Your task to perform on an android device: turn off priority inbox in the gmail app Image 0: 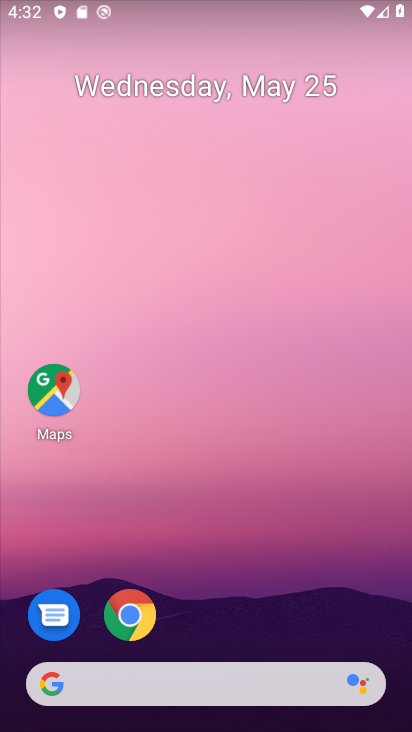
Step 0: drag from (293, 636) to (230, 87)
Your task to perform on an android device: turn off priority inbox in the gmail app Image 1: 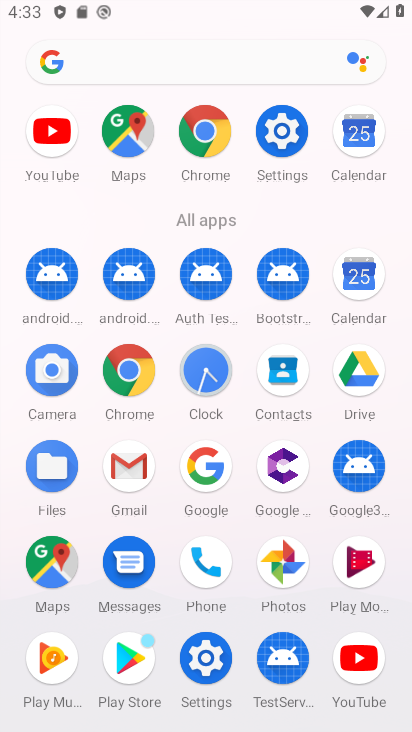
Step 1: click (135, 466)
Your task to perform on an android device: turn off priority inbox in the gmail app Image 2: 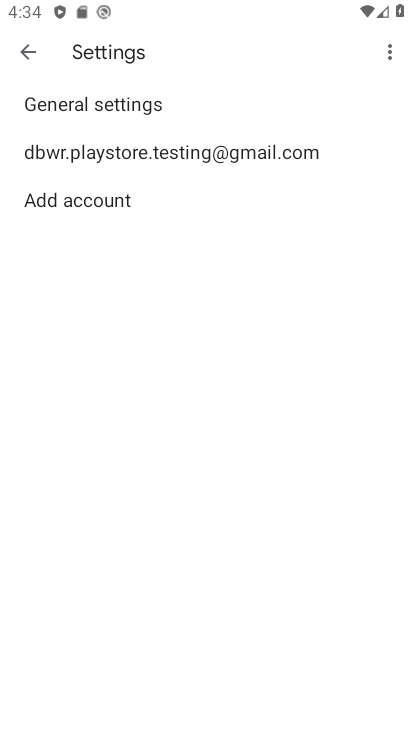
Step 2: click (253, 152)
Your task to perform on an android device: turn off priority inbox in the gmail app Image 3: 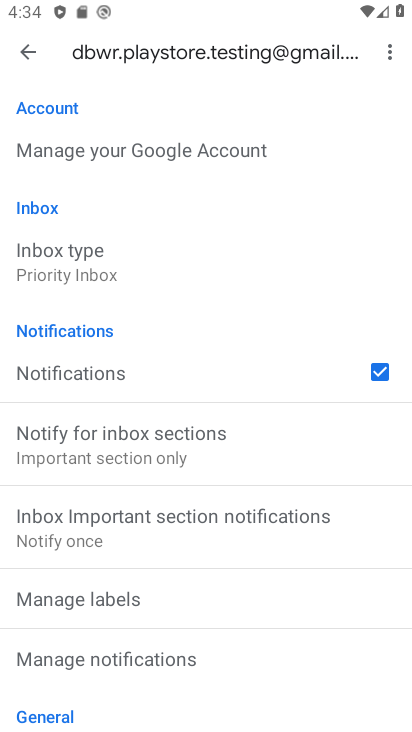
Step 3: drag from (236, 504) to (234, 457)
Your task to perform on an android device: turn off priority inbox in the gmail app Image 4: 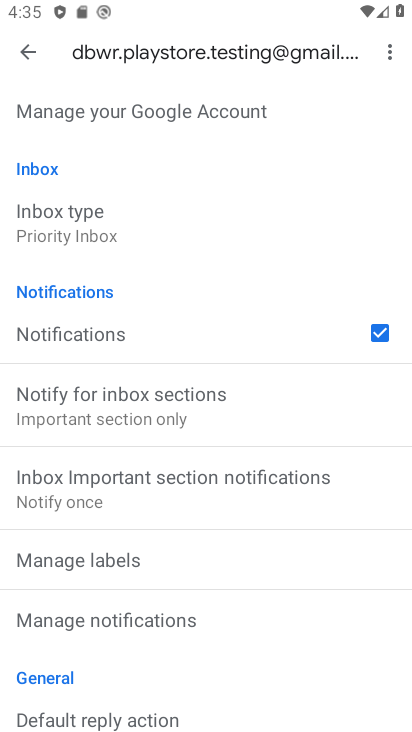
Step 4: click (63, 248)
Your task to perform on an android device: turn off priority inbox in the gmail app Image 5: 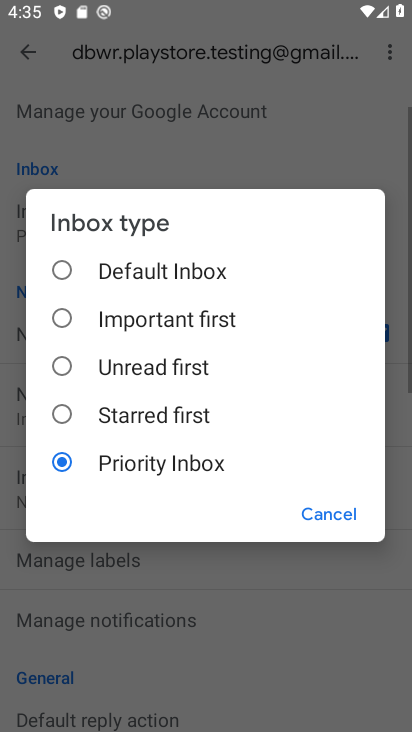
Step 5: click (63, 248)
Your task to perform on an android device: turn off priority inbox in the gmail app Image 6: 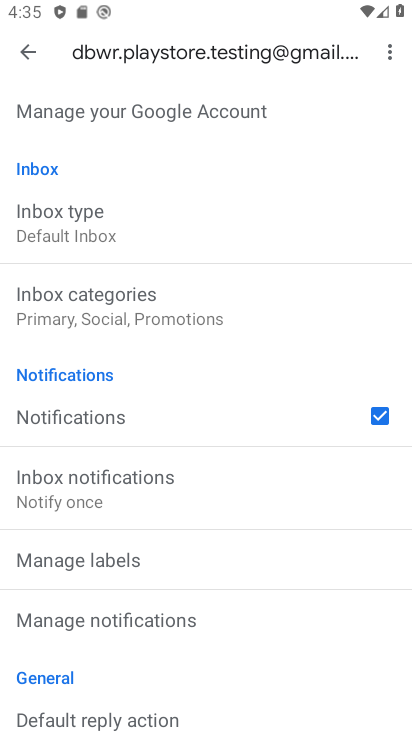
Step 6: task complete